Your task to perform on an android device: turn off improve location accuracy Image 0: 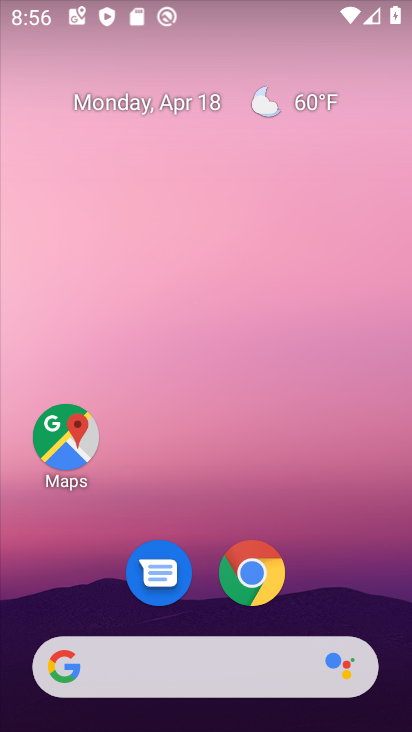
Step 0: drag from (326, 591) to (317, 118)
Your task to perform on an android device: turn off improve location accuracy Image 1: 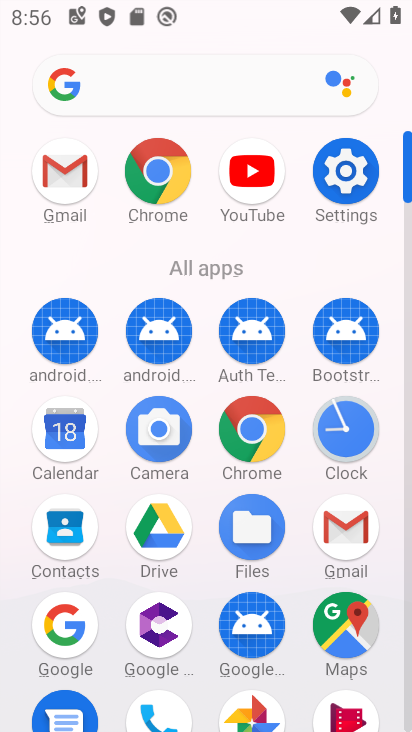
Step 1: click (356, 174)
Your task to perform on an android device: turn off improve location accuracy Image 2: 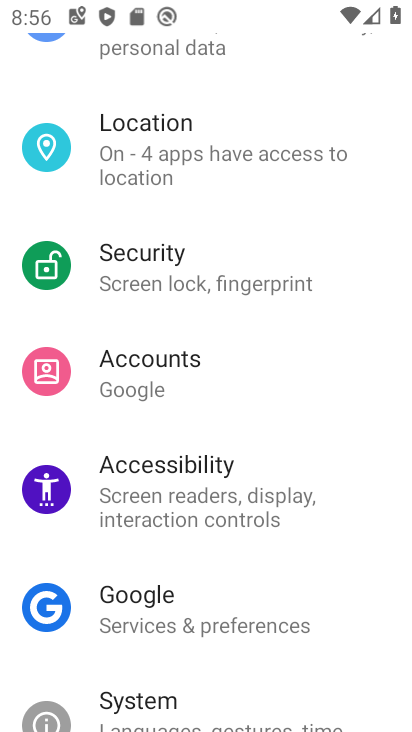
Step 2: click (153, 166)
Your task to perform on an android device: turn off improve location accuracy Image 3: 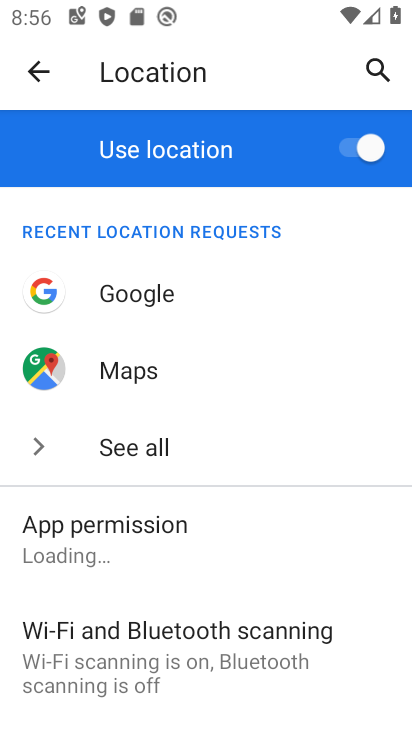
Step 3: drag from (155, 672) to (181, 342)
Your task to perform on an android device: turn off improve location accuracy Image 4: 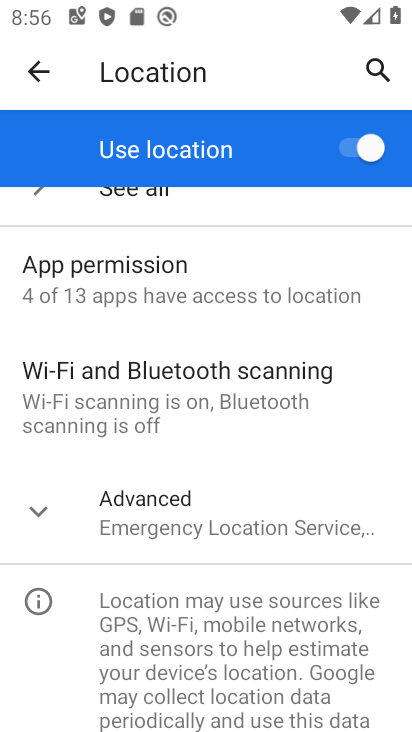
Step 4: click (130, 518)
Your task to perform on an android device: turn off improve location accuracy Image 5: 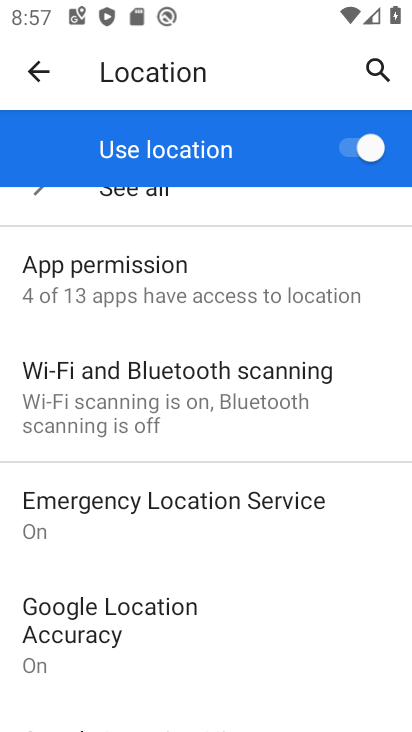
Step 5: click (70, 636)
Your task to perform on an android device: turn off improve location accuracy Image 6: 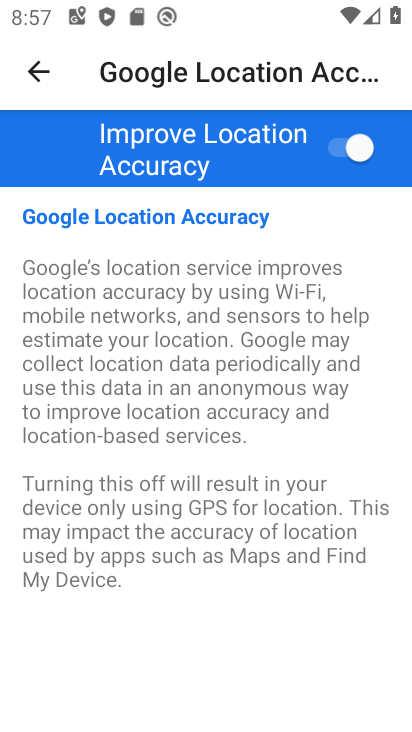
Step 6: click (358, 148)
Your task to perform on an android device: turn off improve location accuracy Image 7: 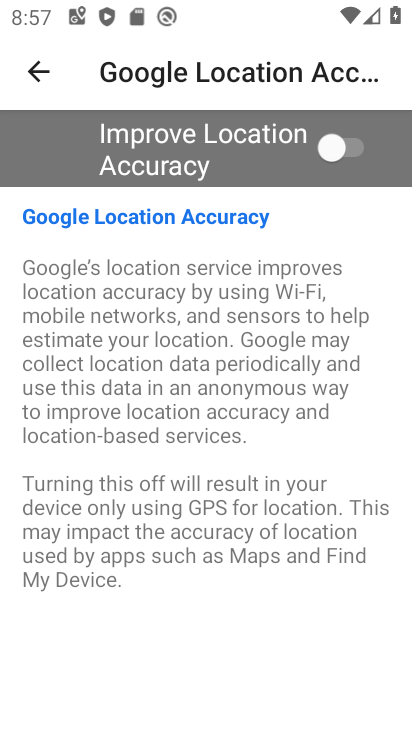
Step 7: task complete